Your task to perform on an android device: turn notification dots off Image 0: 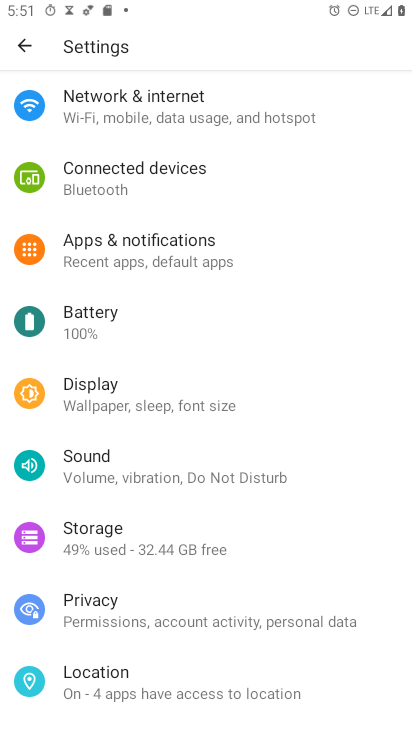
Step 0: press home button
Your task to perform on an android device: turn notification dots off Image 1: 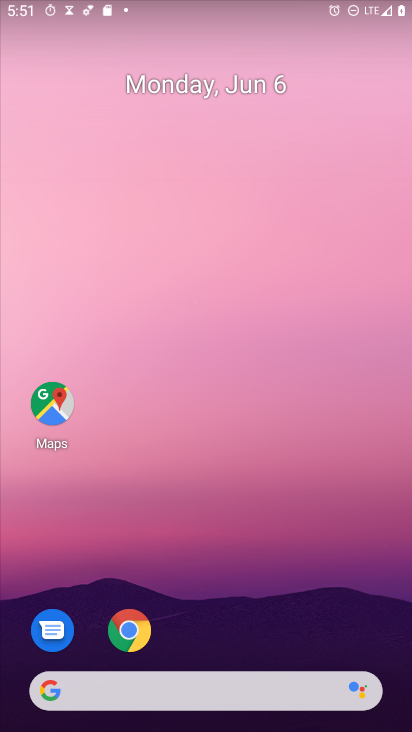
Step 1: drag from (264, 541) to (214, 13)
Your task to perform on an android device: turn notification dots off Image 2: 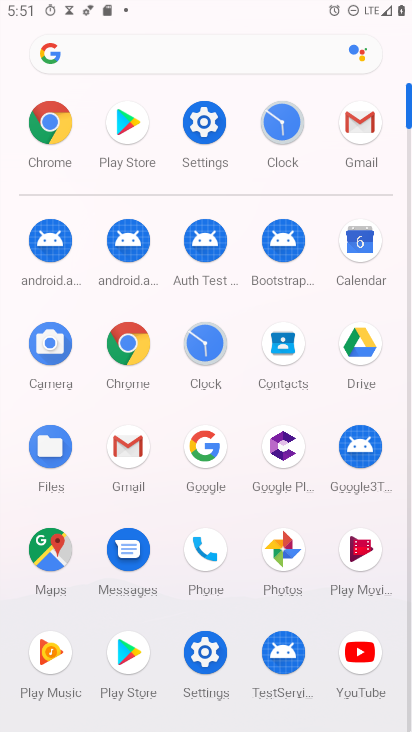
Step 2: click (203, 135)
Your task to perform on an android device: turn notification dots off Image 3: 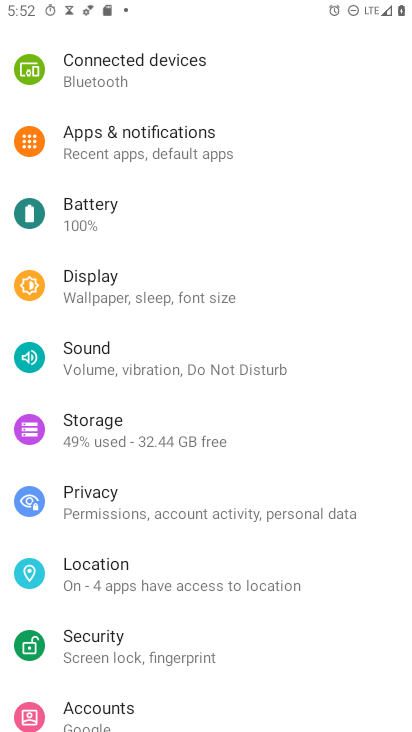
Step 3: click (207, 161)
Your task to perform on an android device: turn notification dots off Image 4: 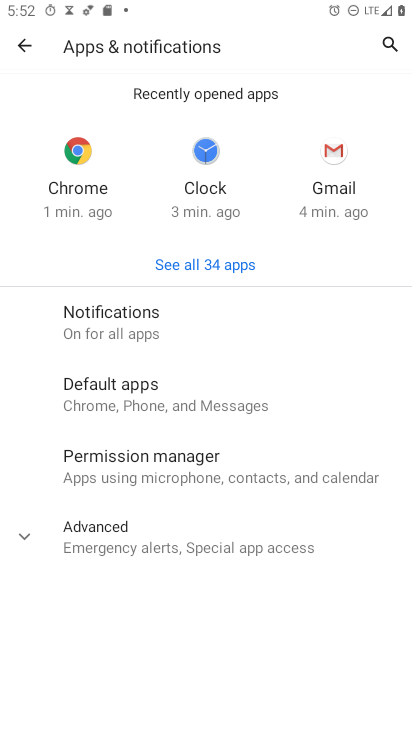
Step 4: click (220, 315)
Your task to perform on an android device: turn notification dots off Image 5: 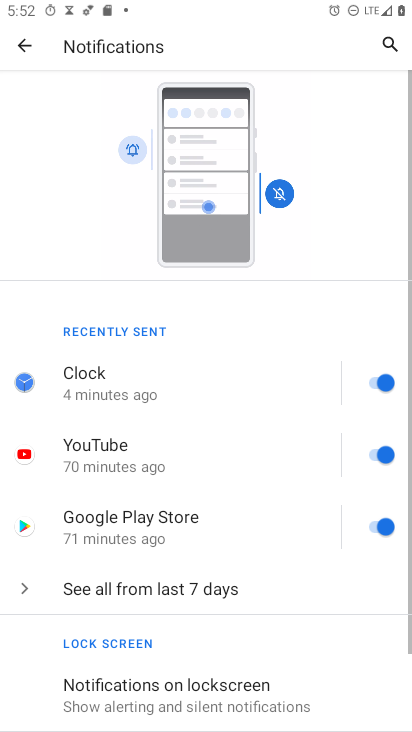
Step 5: drag from (214, 586) to (287, 61)
Your task to perform on an android device: turn notification dots off Image 6: 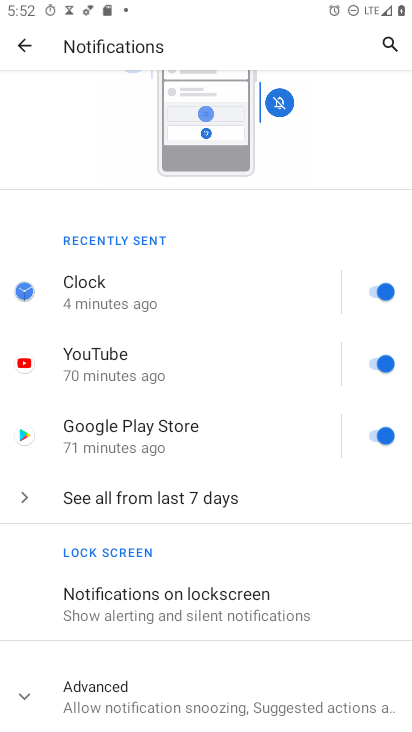
Step 6: drag from (202, 640) to (252, 177)
Your task to perform on an android device: turn notification dots off Image 7: 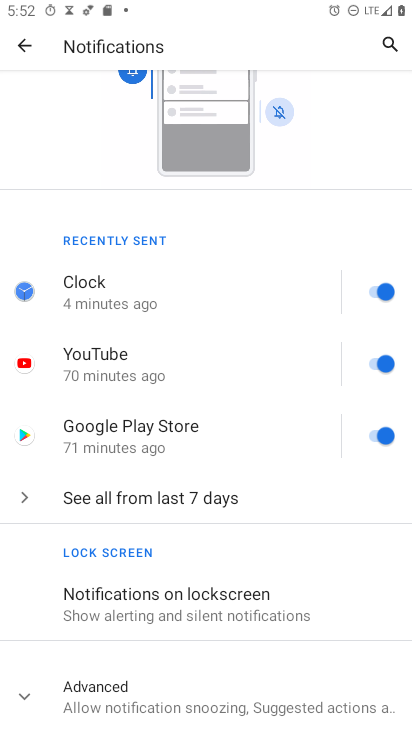
Step 7: click (182, 696)
Your task to perform on an android device: turn notification dots off Image 8: 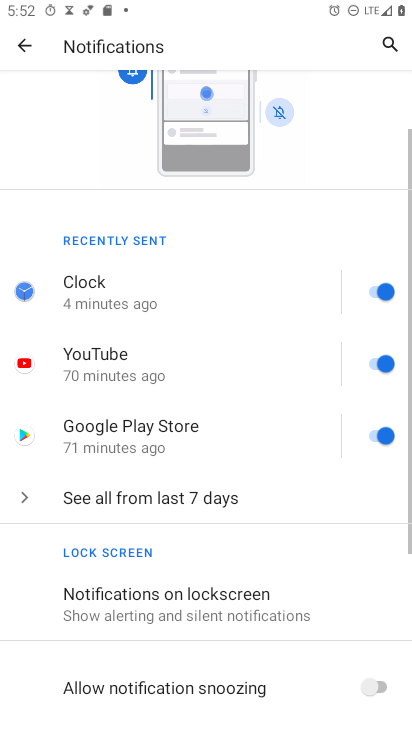
Step 8: drag from (315, 677) to (315, 88)
Your task to perform on an android device: turn notification dots off Image 9: 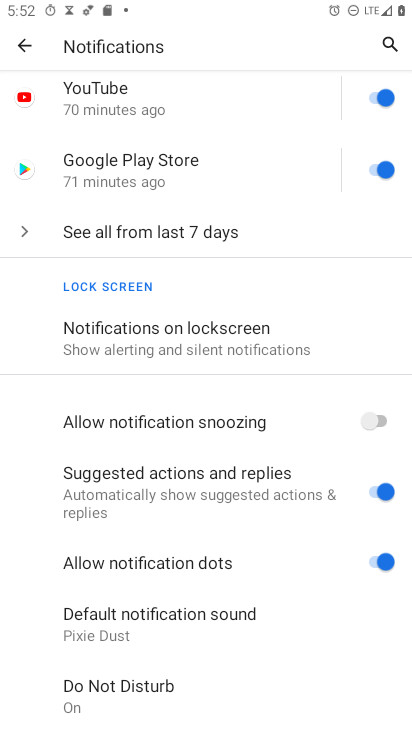
Step 9: click (391, 550)
Your task to perform on an android device: turn notification dots off Image 10: 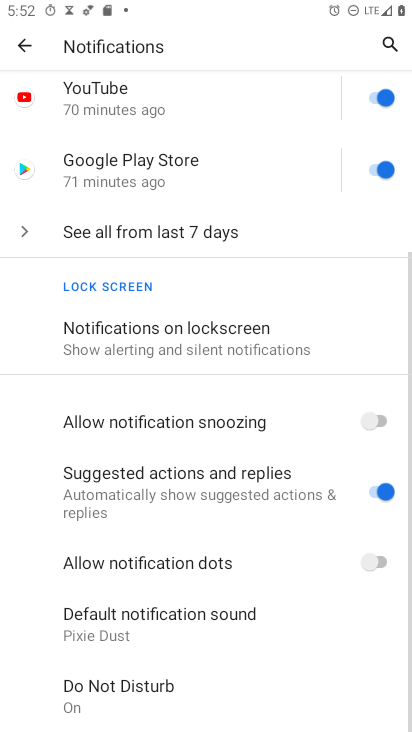
Step 10: task complete